Your task to perform on an android device: Find coffee shops on Maps Image 0: 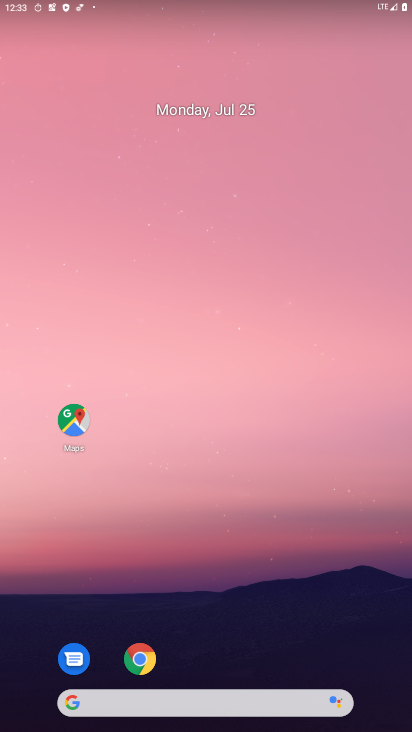
Step 0: click (75, 422)
Your task to perform on an android device: Find coffee shops on Maps Image 1: 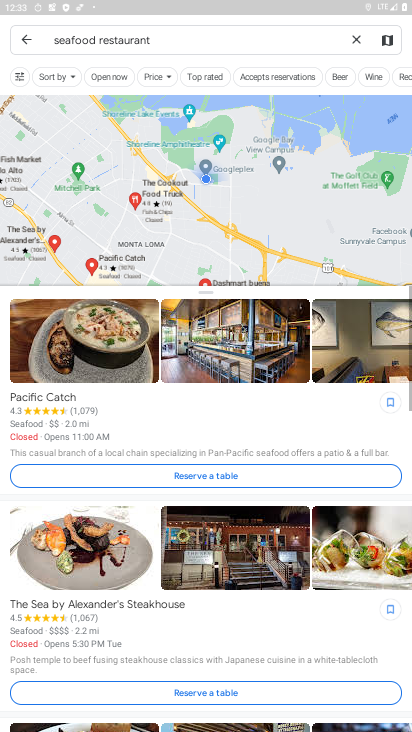
Step 1: click (20, 39)
Your task to perform on an android device: Find coffee shops on Maps Image 2: 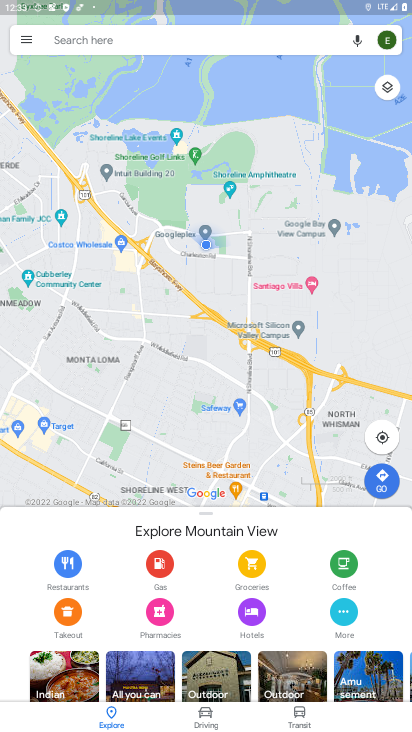
Step 2: click (82, 40)
Your task to perform on an android device: Find coffee shops on Maps Image 3: 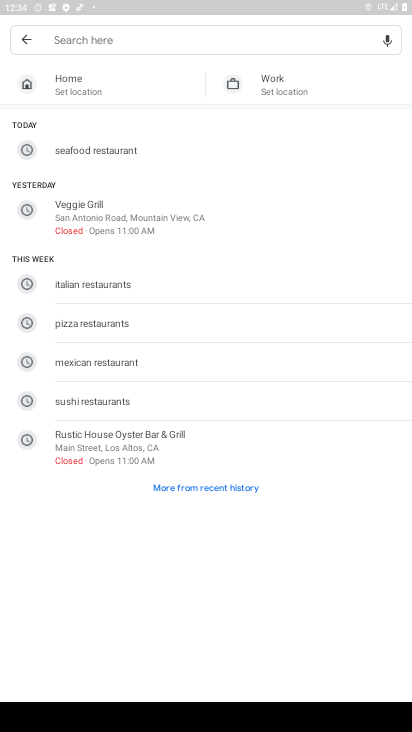
Step 3: type "coffee shops "
Your task to perform on an android device: Find coffee shops on Maps Image 4: 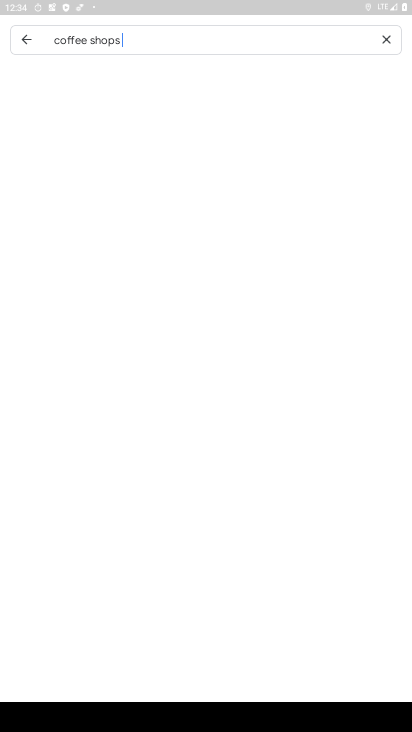
Step 4: type ""
Your task to perform on an android device: Find coffee shops on Maps Image 5: 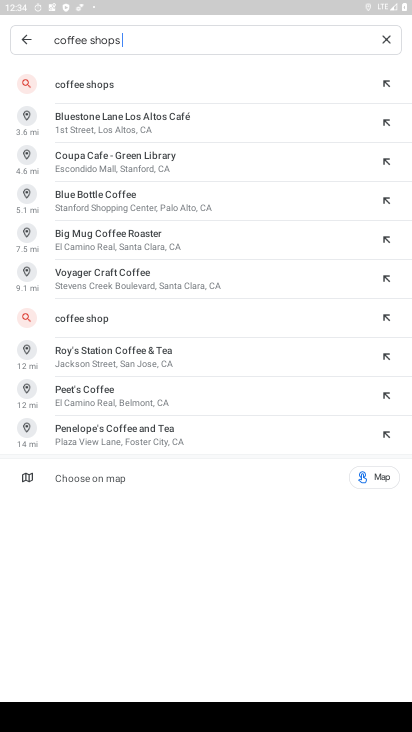
Step 5: click (93, 81)
Your task to perform on an android device: Find coffee shops on Maps Image 6: 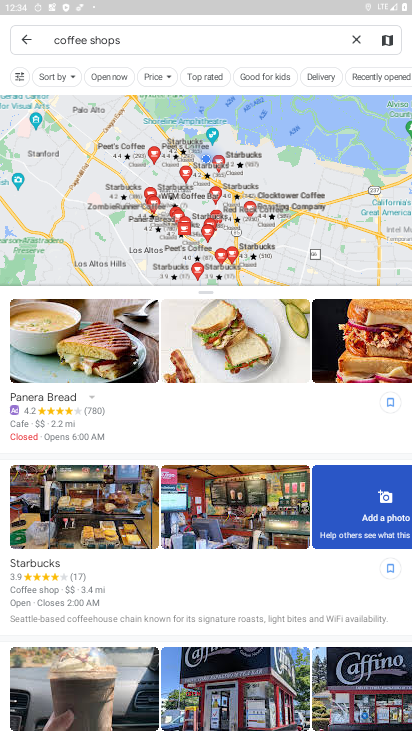
Step 6: task complete